Your task to perform on an android device: Go to Google Image 0: 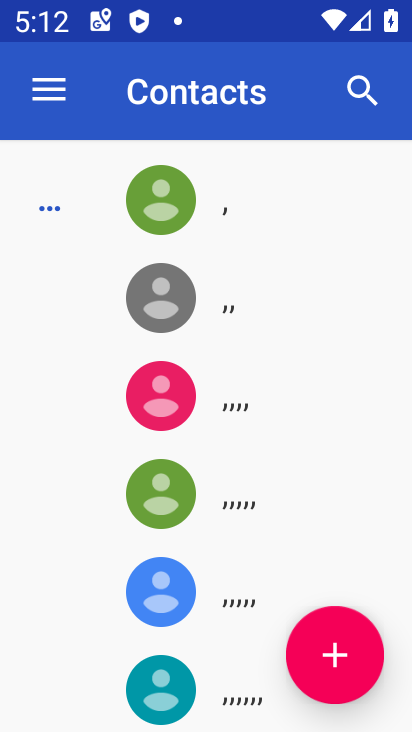
Step 0: press home button
Your task to perform on an android device: Go to Google Image 1: 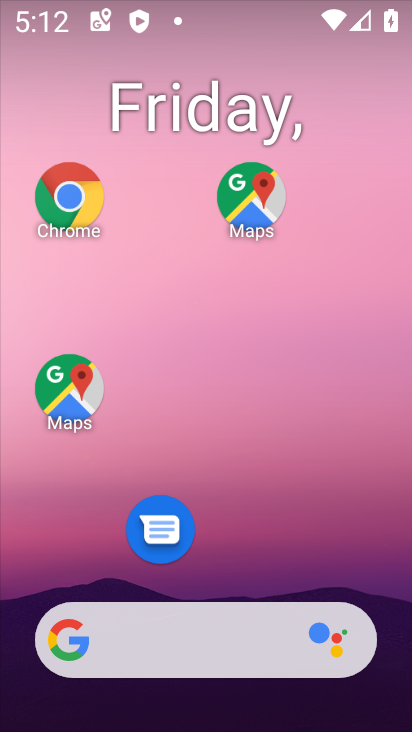
Step 1: click (202, 638)
Your task to perform on an android device: Go to Google Image 2: 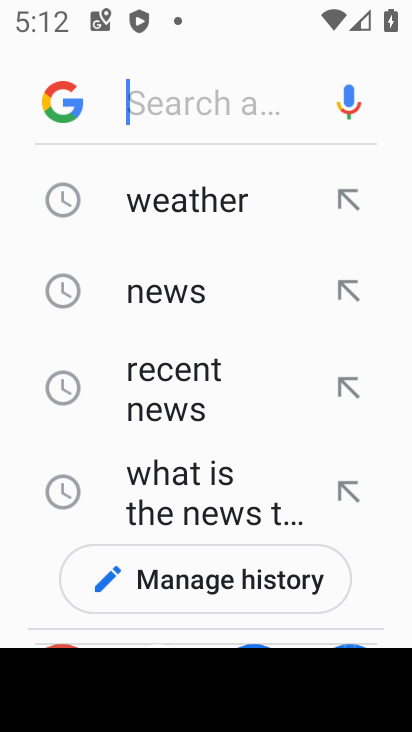
Step 2: task complete